Your task to perform on an android device: add a contact in the contacts app Image 0: 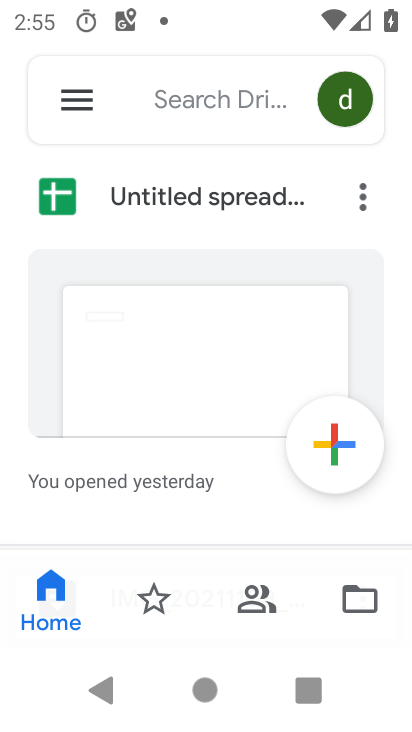
Step 0: press home button
Your task to perform on an android device: add a contact in the contacts app Image 1: 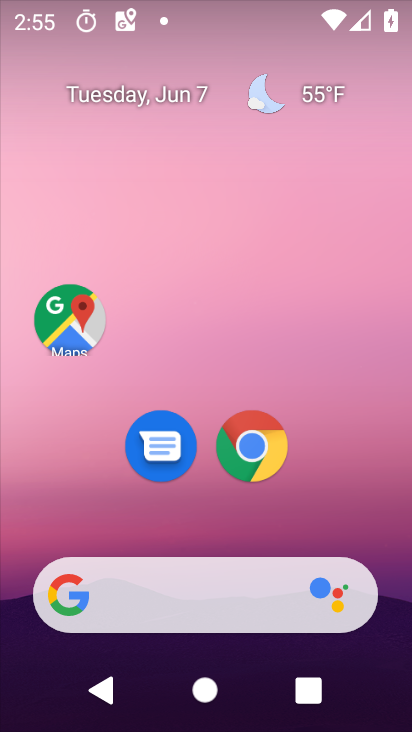
Step 1: drag from (194, 501) to (212, 259)
Your task to perform on an android device: add a contact in the contacts app Image 2: 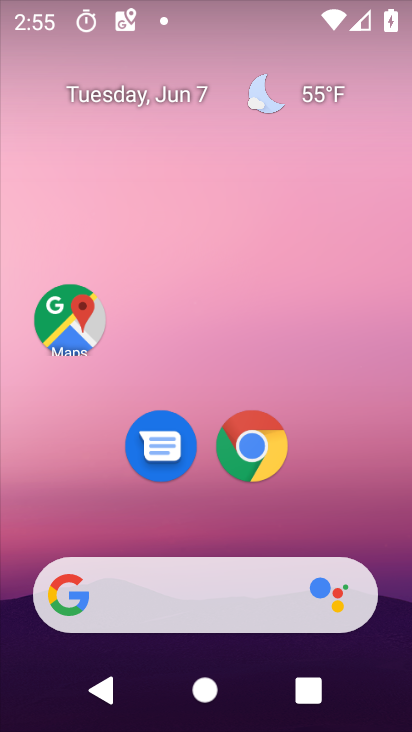
Step 2: drag from (171, 546) to (168, 211)
Your task to perform on an android device: add a contact in the contacts app Image 3: 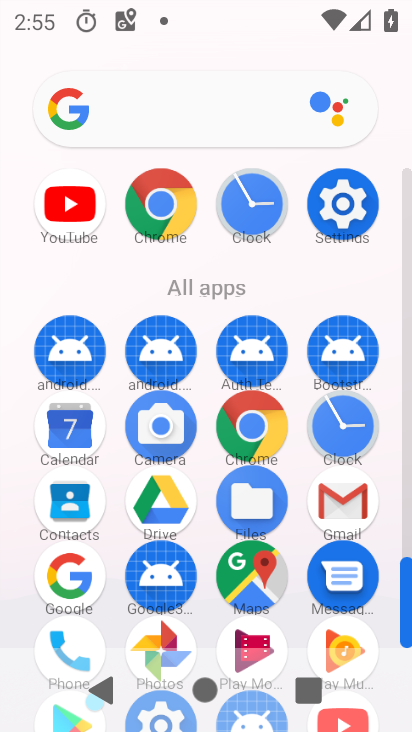
Step 3: click (77, 503)
Your task to perform on an android device: add a contact in the contacts app Image 4: 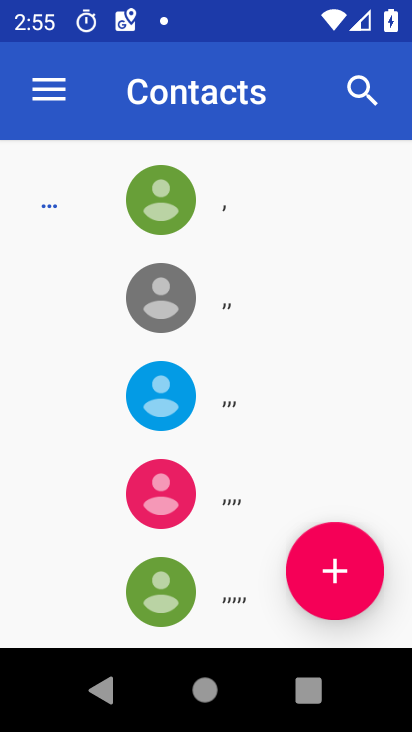
Step 4: click (320, 569)
Your task to perform on an android device: add a contact in the contacts app Image 5: 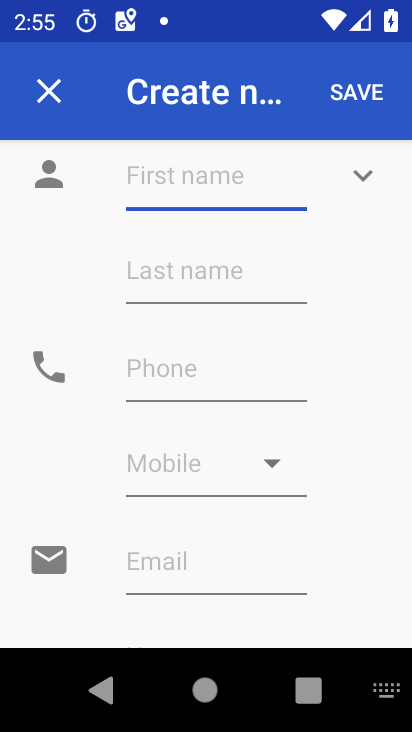
Step 5: type "curt"
Your task to perform on an android device: add a contact in the contacts app Image 6: 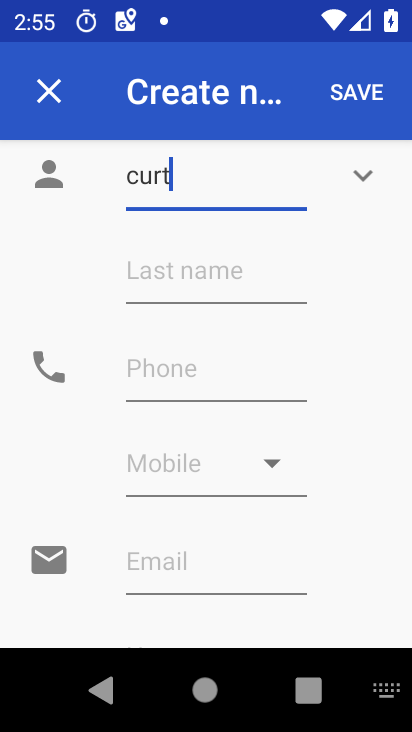
Step 6: click (339, 96)
Your task to perform on an android device: add a contact in the contacts app Image 7: 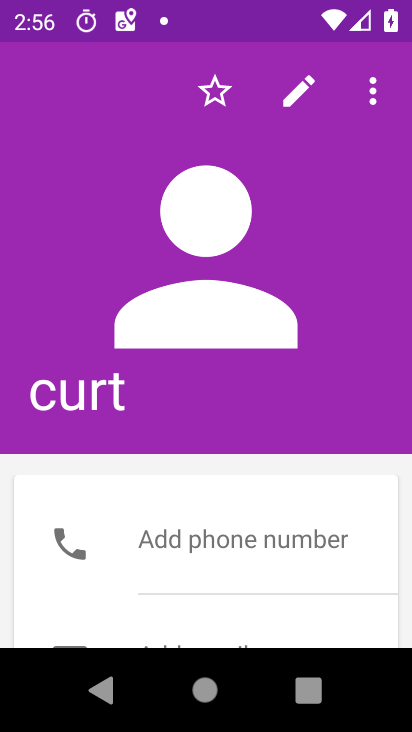
Step 7: task complete